Your task to perform on an android device: all mails in gmail Image 0: 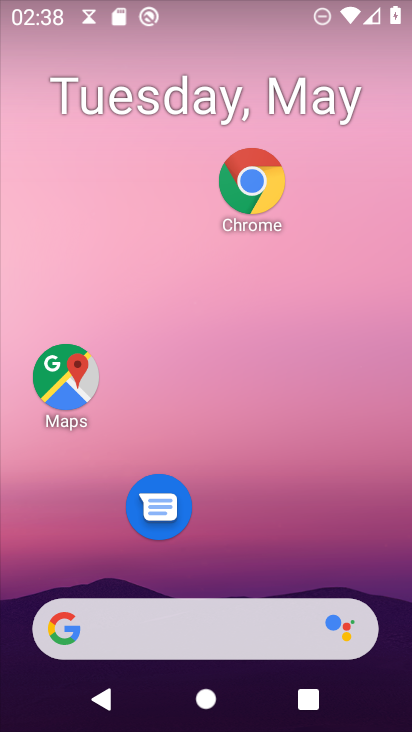
Step 0: drag from (288, 495) to (329, 268)
Your task to perform on an android device: all mails in gmail Image 1: 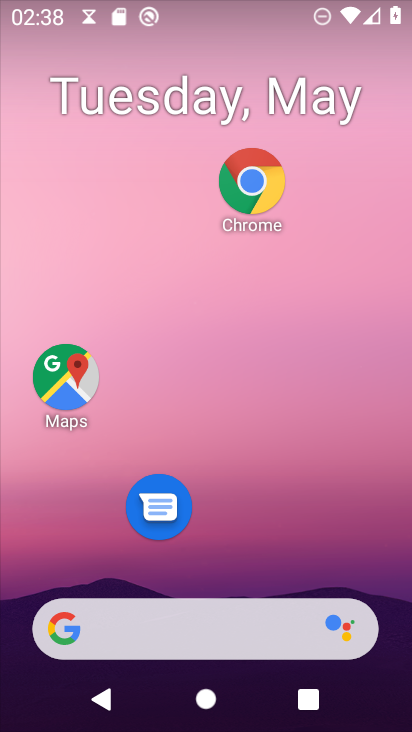
Step 1: drag from (318, 429) to (318, 261)
Your task to perform on an android device: all mails in gmail Image 2: 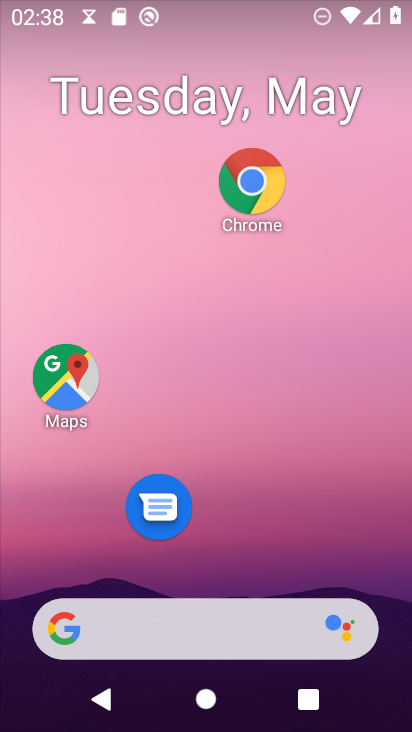
Step 2: drag from (255, 489) to (253, 241)
Your task to perform on an android device: all mails in gmail Image 3: 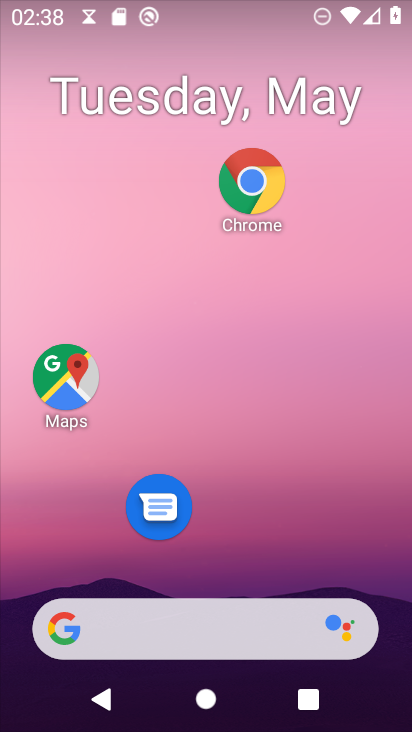
Step 3: drag from (251, 587) to (238, 141)
Your task to perform on an android device: all mails in gmail Image 4: 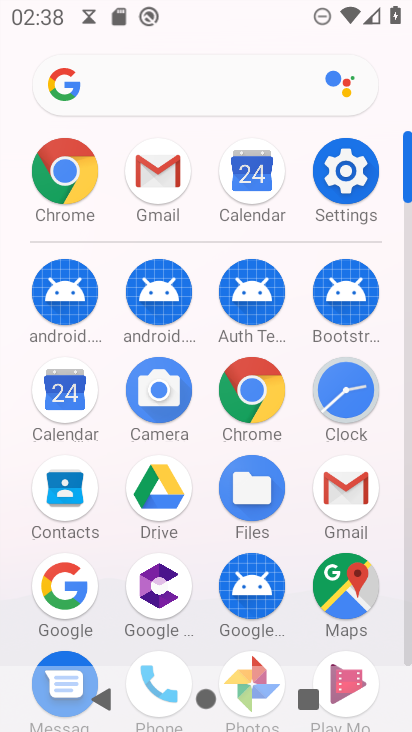
Step 4: click (337, 491)
Your task to perform on an android device: all mails in gmail Image 5: 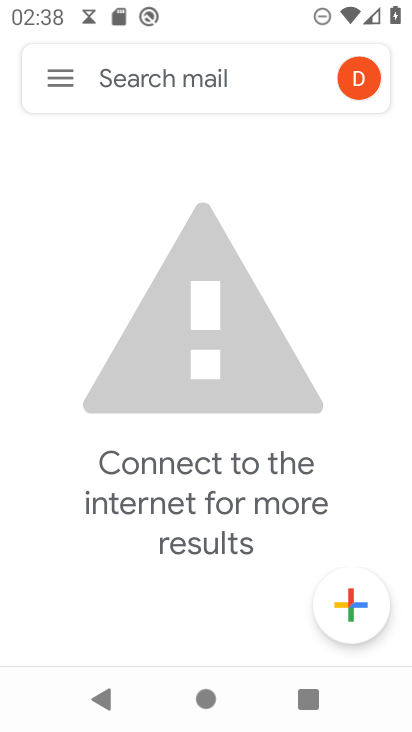
Step 5: click (51, 79)
Your task to perform on an android device: all mails in gmail Image 6: 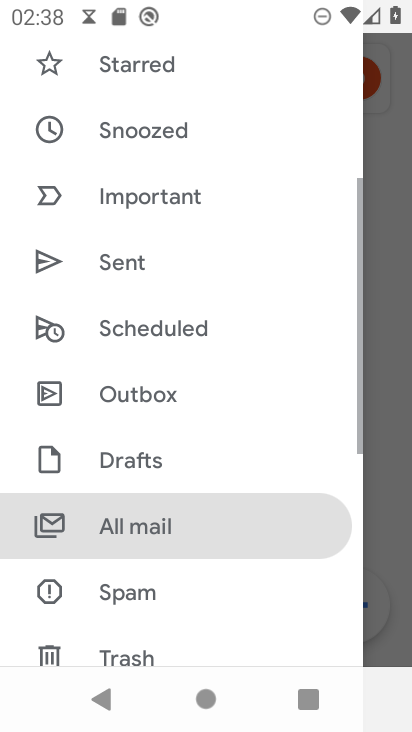
Step 6: click (208, 534)
Your task to perform on an android device: all mails in gmail Image 7: 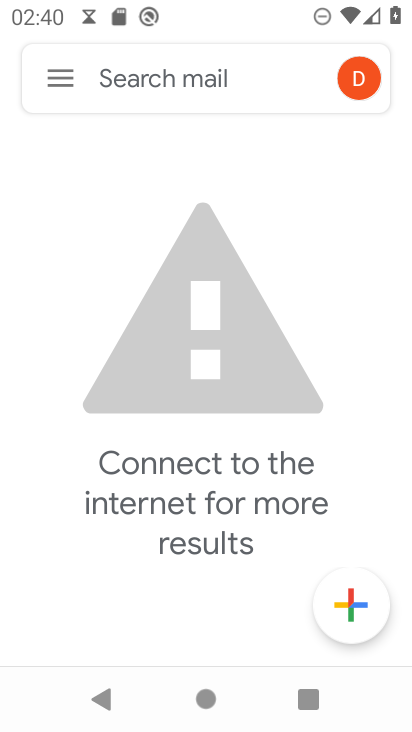
Step 7: task complete